Your task to perform on an android device: Search for Italian restaurants on Maps Image 0: 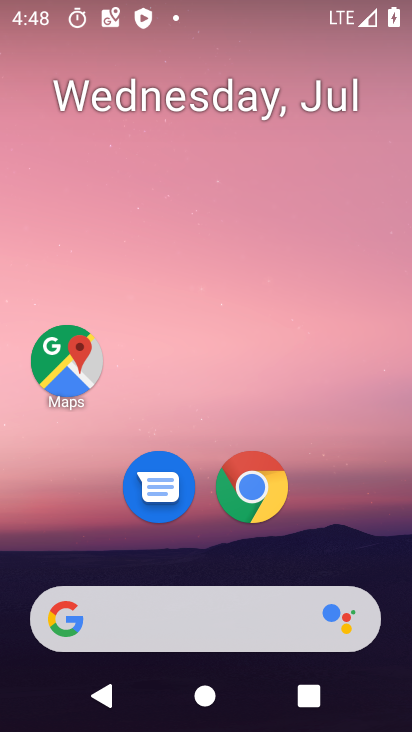
Step 0: click (63, 362)
Your task to perform on an android device: Search for Italian restaurants on Maps Image 1: 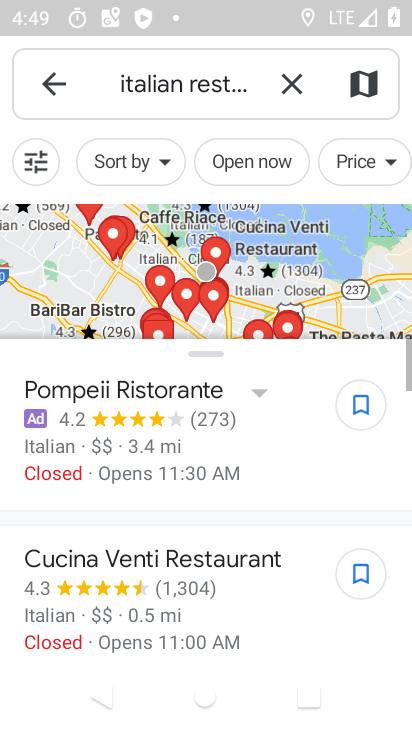
Step 1: click (296, 76)
Your task to perform on an android device: Search for Italian restaurants on Maps Image 2: 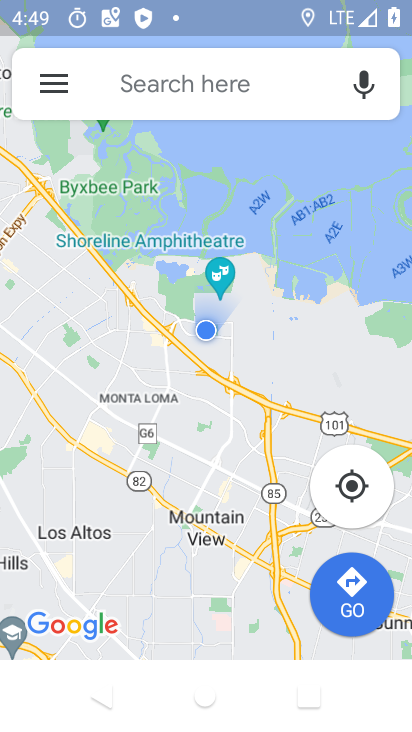
Step 2: click (149, 96)
Your task to perform on an android device: Search for Italian restaurants on Maps Image 3: 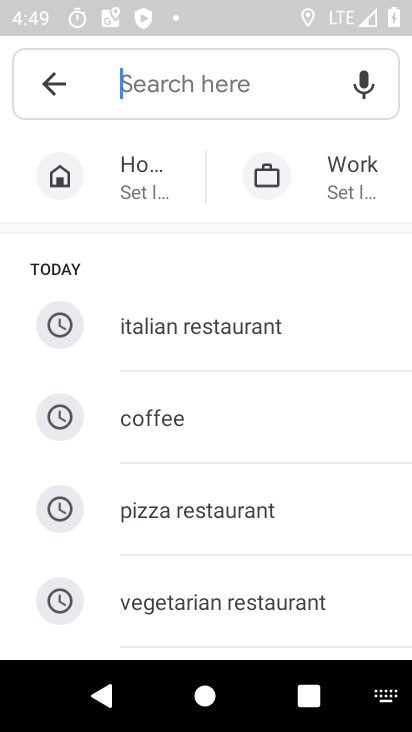
Step 3: click (169, 323)
Your task to perform on an android device: Search for Italian restaurants on Maps Image 4: 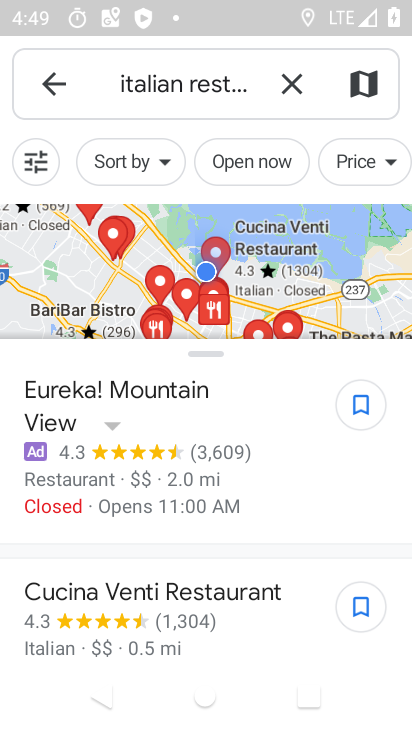
Step 4: task complete